Your task to perform on an android device: Search for Italian restaurants on Maps Image 0: 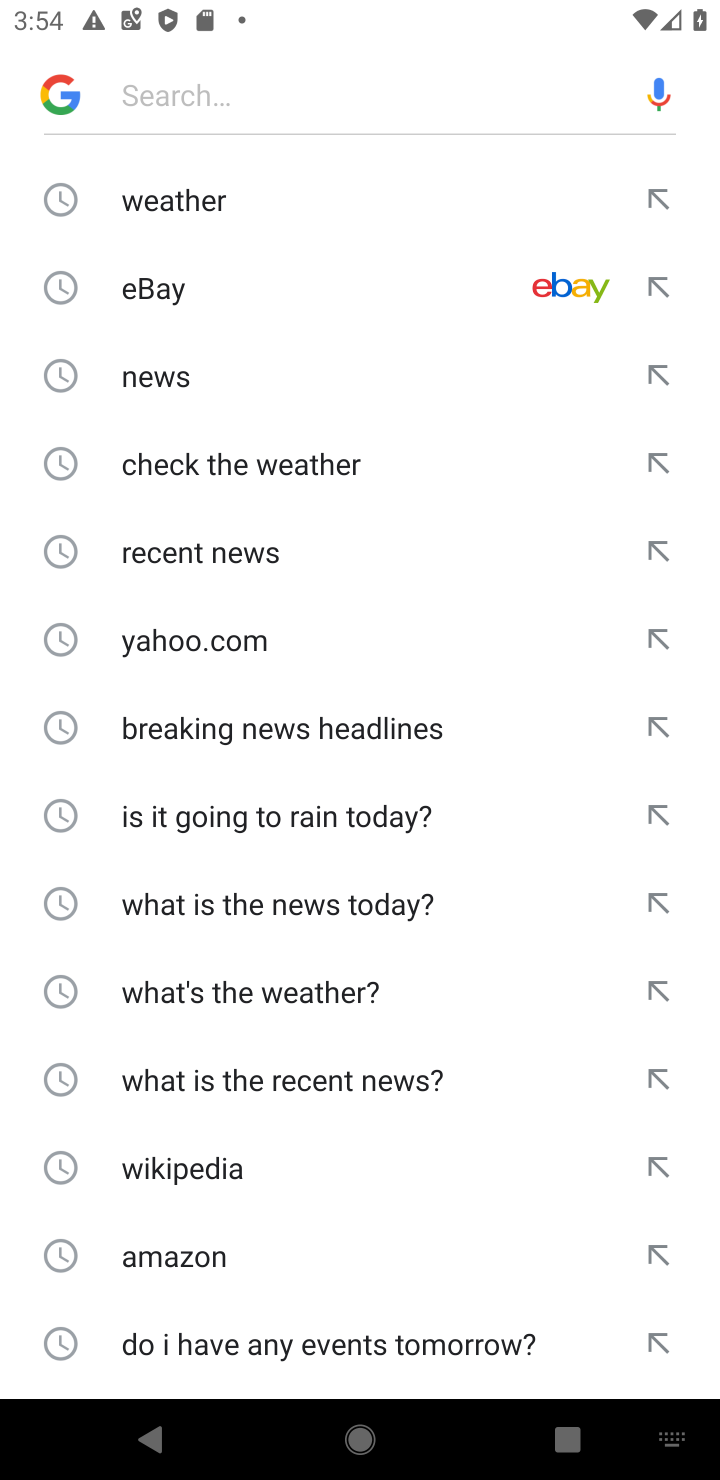
Step 0: press home button
Your task to perform on an android device: Search for Italian restaurants on Maps Image 1: 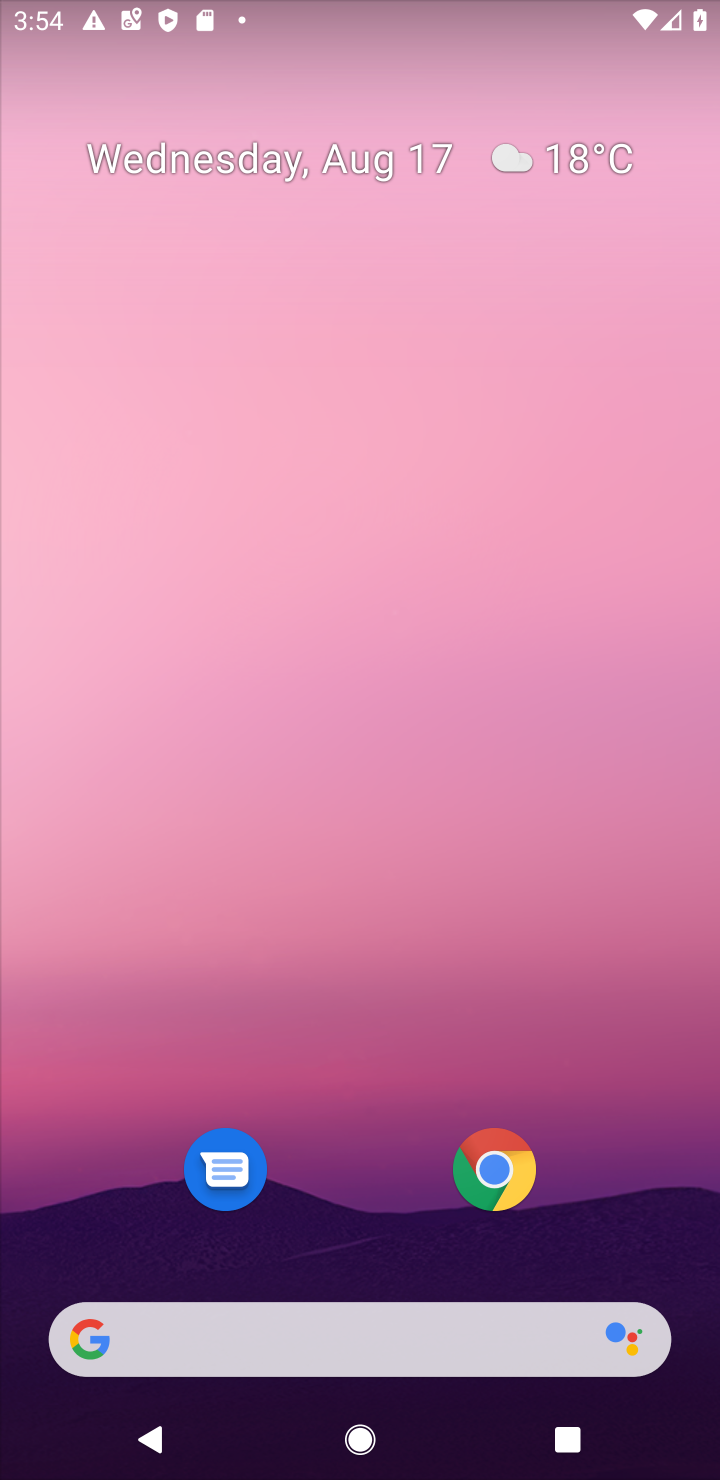
Step 1: drag from (342, 1200) to (378, 203)
Your task to perform on an android device: Search for Italian restaurants on Maps Image 2: 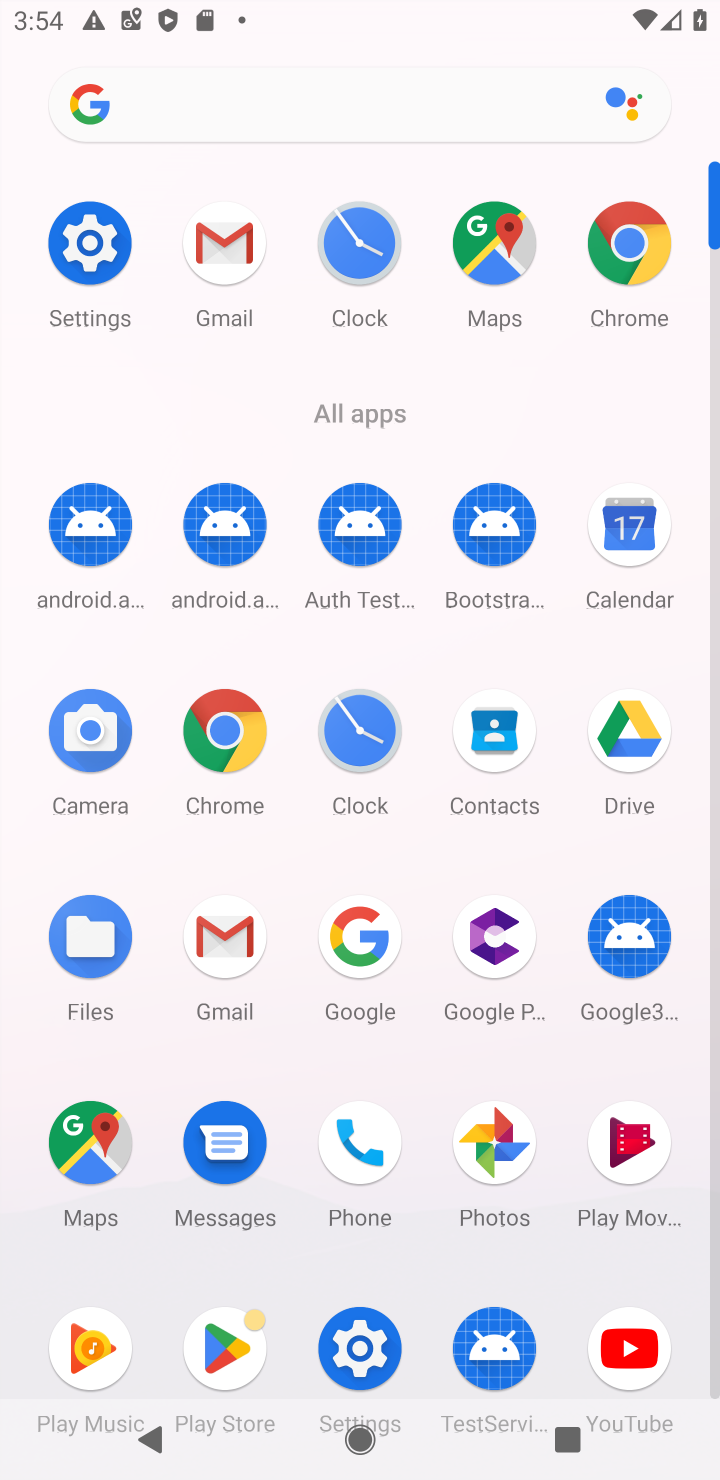
Step 2: click (89, 1120)
Your task to perform on an android device: Search for Italian restaurants on Maps Image 3: 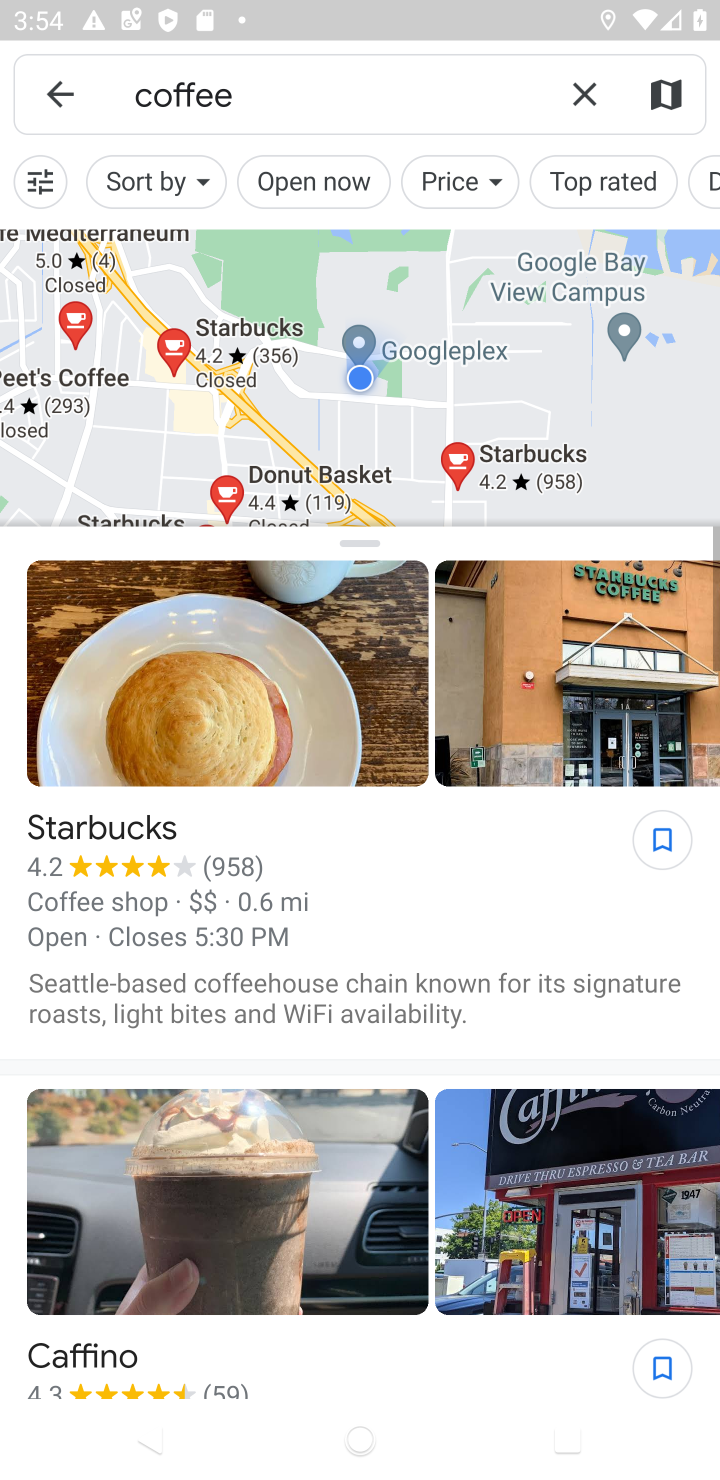
Step 3: click (582, 80)
Your task to perform on an android device: Search for Italian restaurants on Maps Image 4: 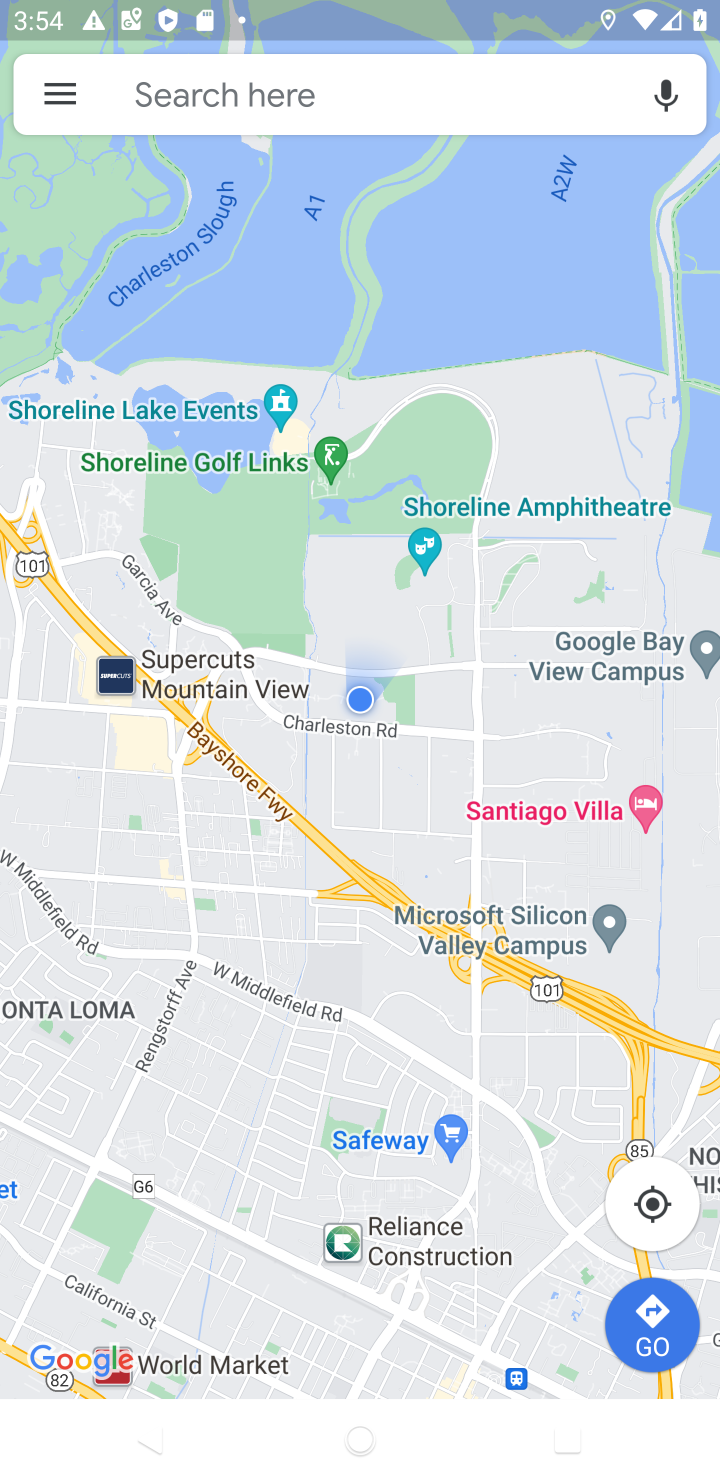
Step 4: click (542, 99)
Your task to perform on an android device: Search for Italian restaurants on Maps Image 5: 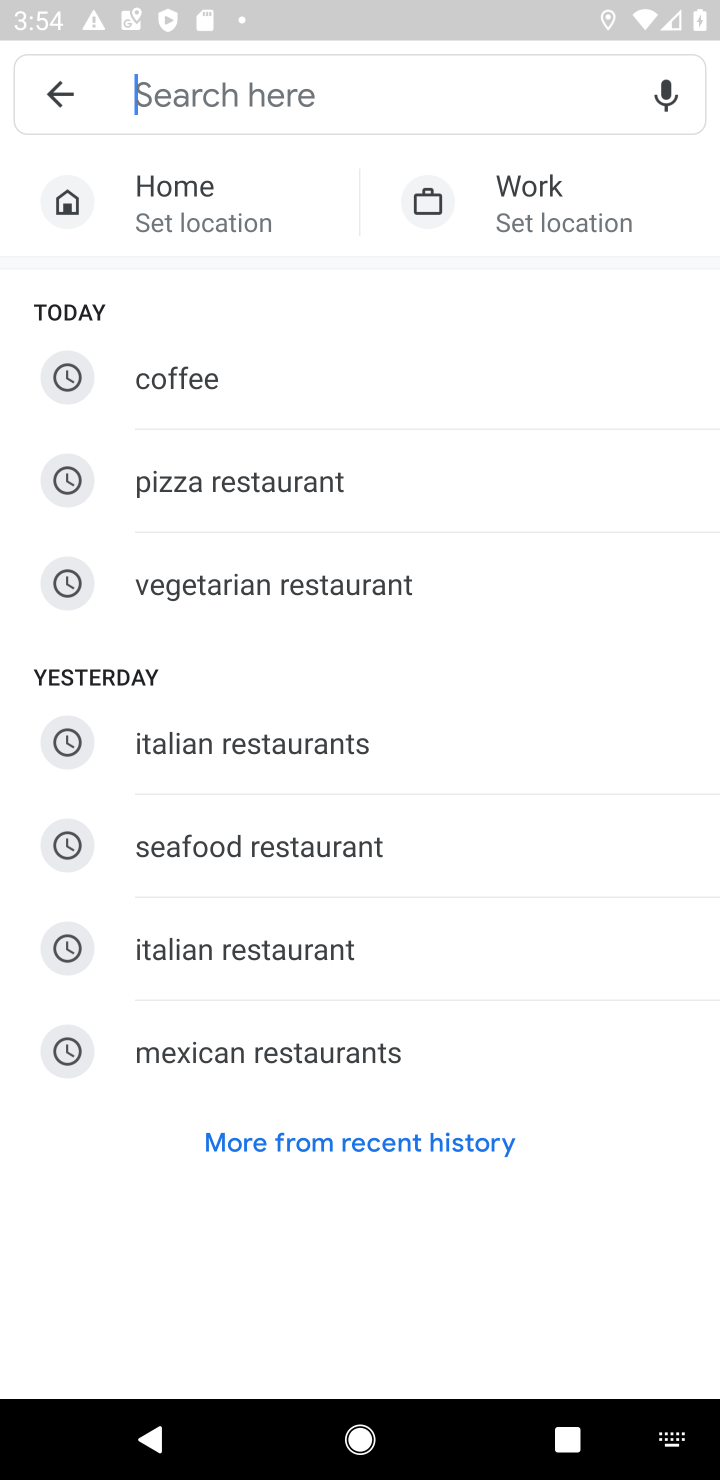
Step 5: type " Italian restaurants"
Your task to perform on an android device: Search for Italian restaurants on Maps Image 6: 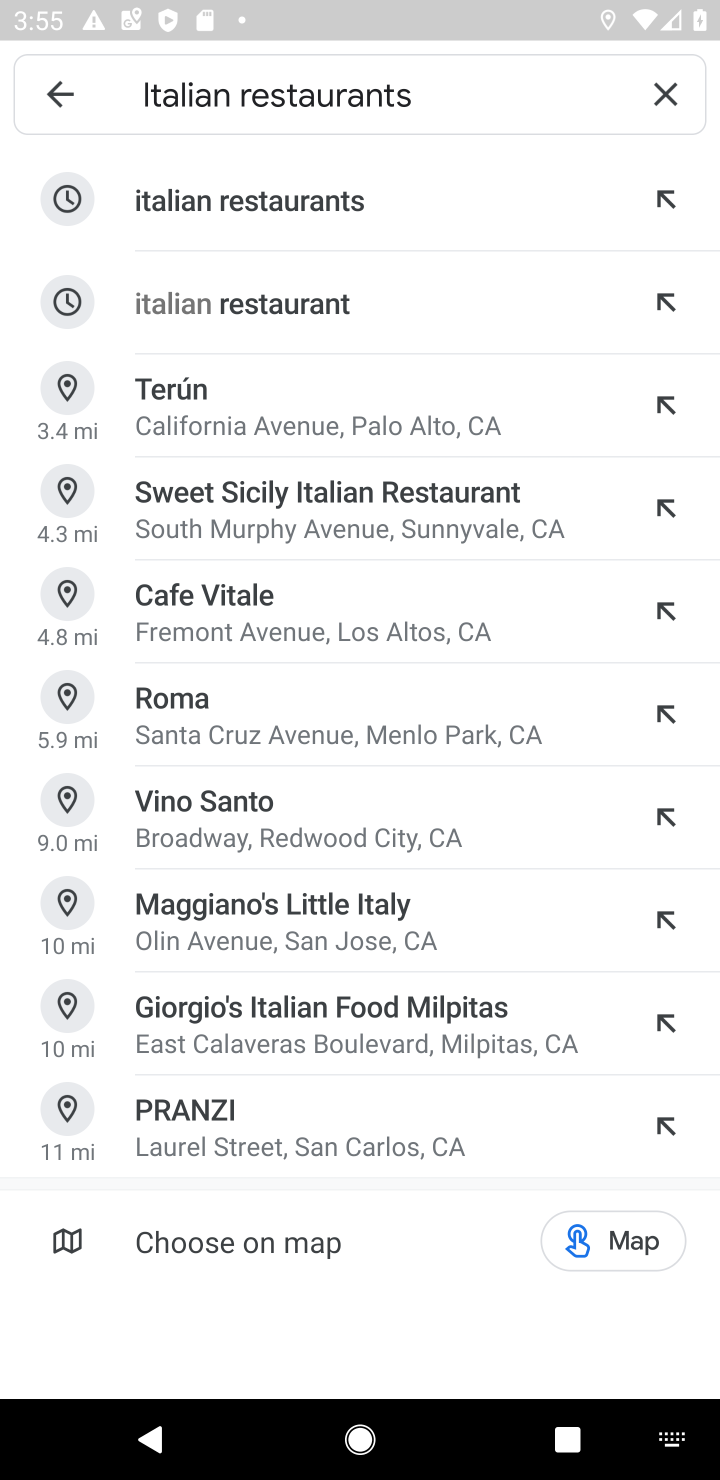
Step 6: click (226, 205)
Your task to perform on an android device: Search for Italian restaurants on Maps Image 7: 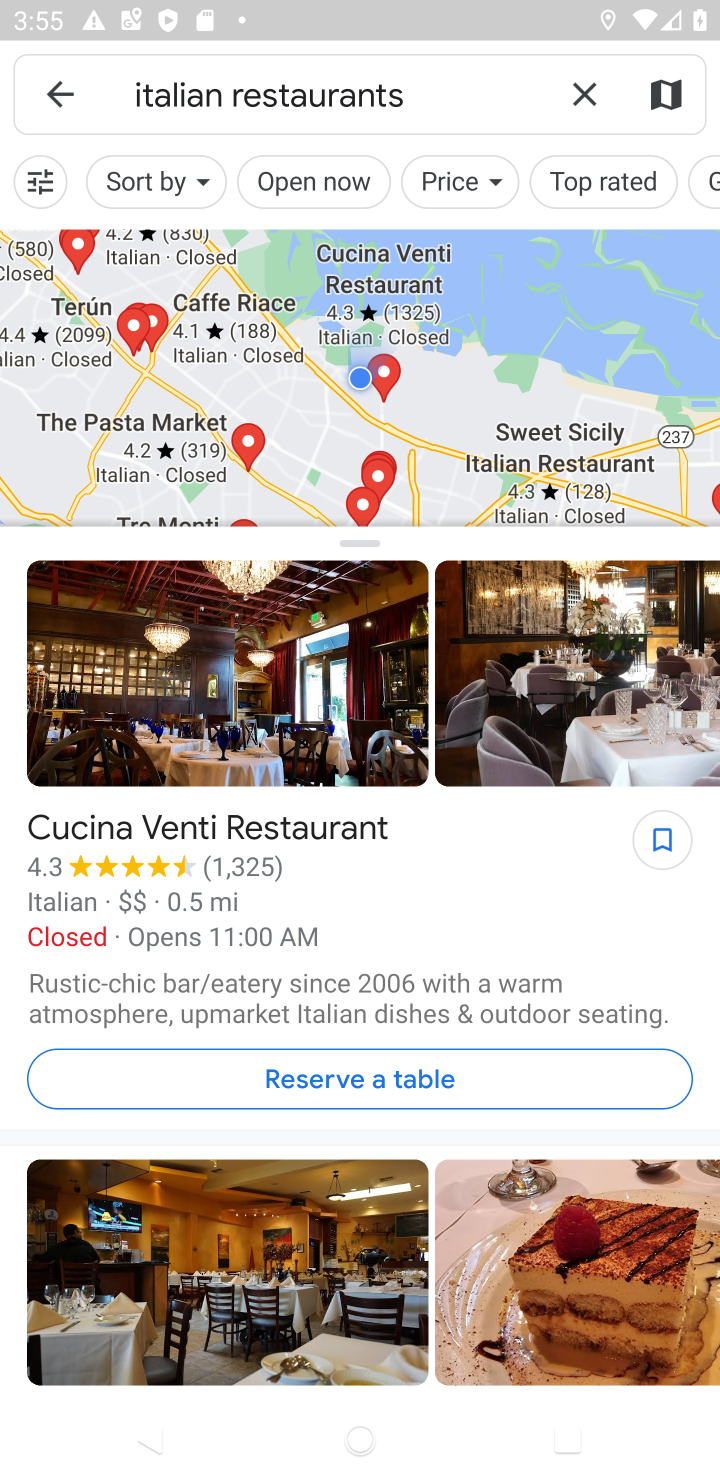
Step 7: task complete